Your task to perform on an android device: open app "Move to iOS" (install if not already installed) and enter user name: "Decca@icloud.com" and password: "reabbreviate" Image 0: 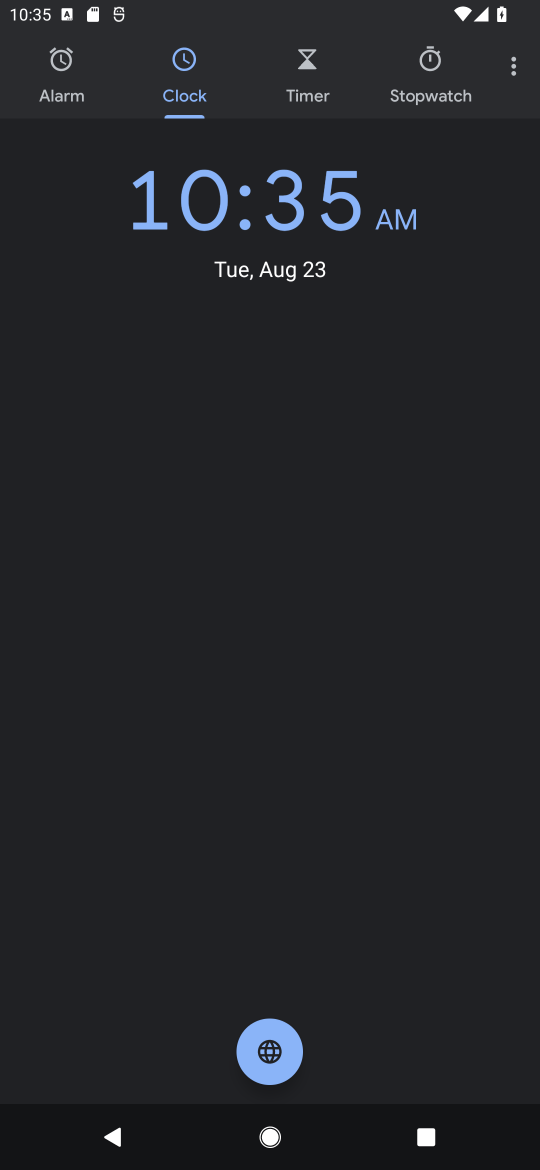
Step 0: press home button
Your task to perform on an android device: open app "Move to iOS" (install if not already installed) and enter user name: "Decca@icloud.com" and password: "reabbreviate" Image 1: 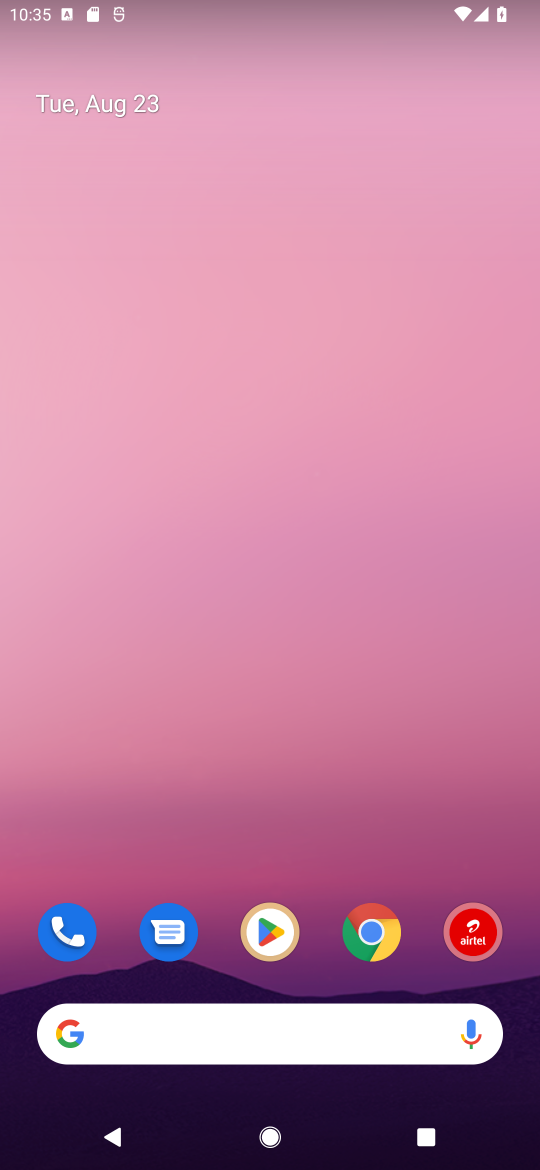
Step 1: click (262, 907)
Your task to perform on an android device: open app "Move to iOS" (install if not already installed) and enter user name: "Decca@icloud.com" and password: "reabbreviate" Image 2: 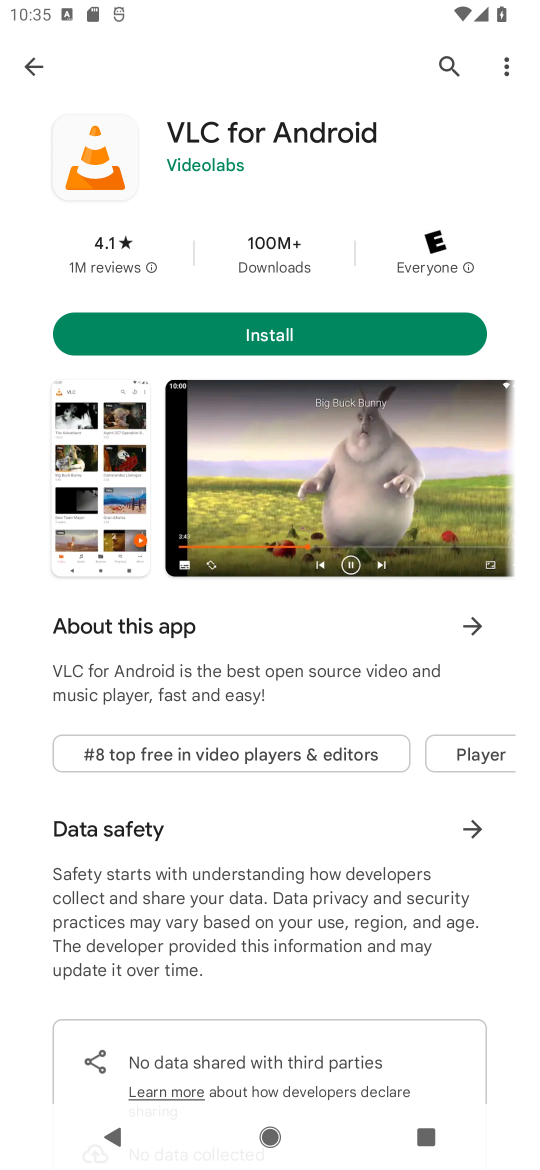
Step 2: click (444, 58)
Your task to perform on an android device: open app "Move to iOS" (install if not already installed) and enter user name: "Decca@icloud.com" and password: "reabbreviate" Image 3: 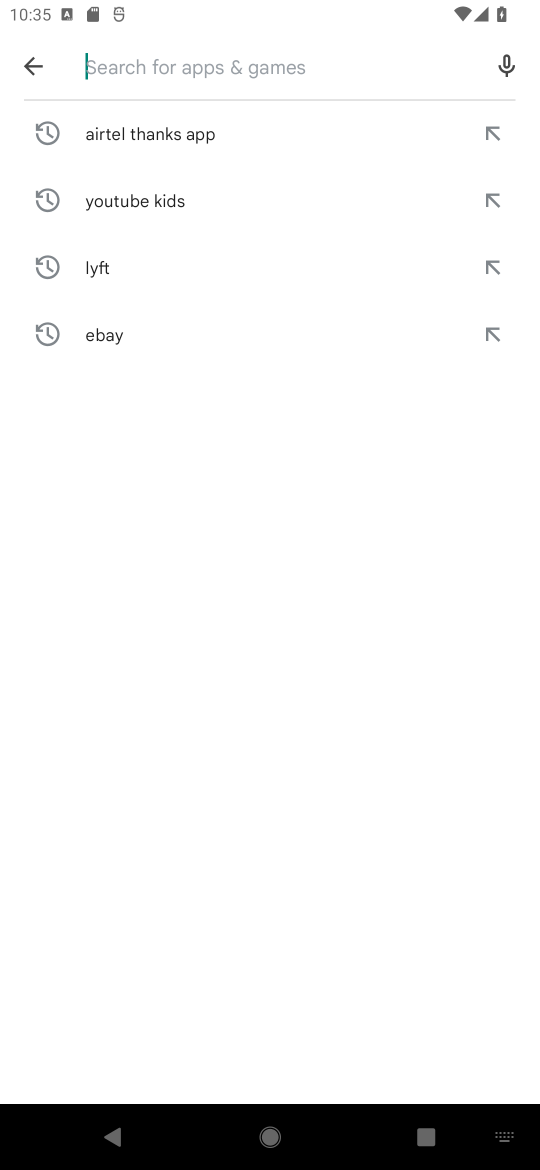
Step 3: click (201, 73)
Your task to perform on an android device: open app "Move to iOS" (install if not already installed) and enter user name: "Decca@icloud.com" and password: "reabbreviate" Image 4: 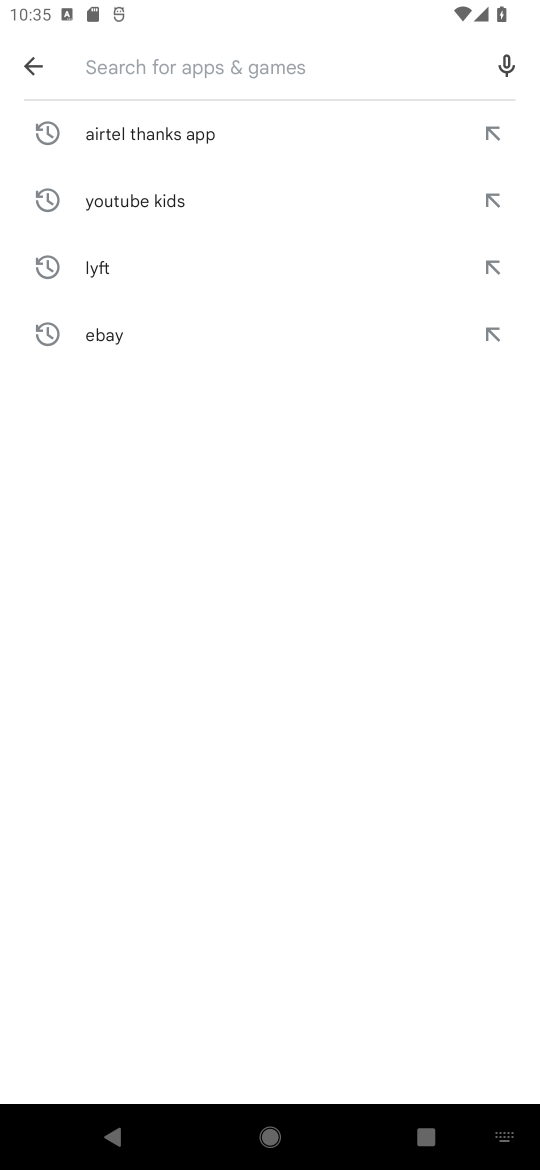
Step 4: type "Move to iOS"
Your task to perform on an android device: open app "Move to iOS" (install if not already installed) and enter user name: "Decca@icloud.com" and password: "reabbreviate" Image 5: 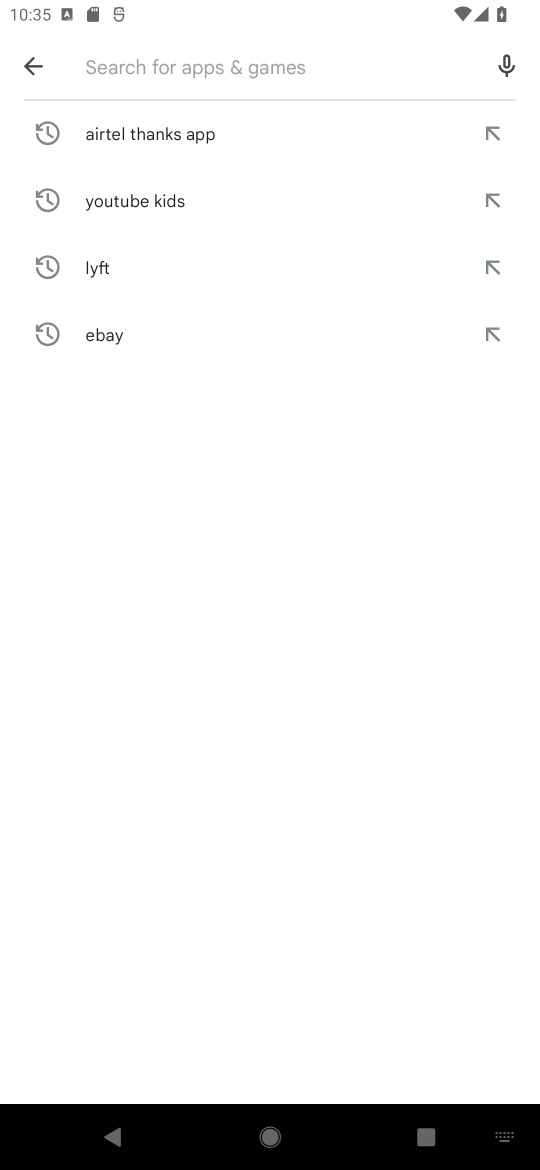
Step 5: click (244, 775)
Your task to perform on an android device: open app "Move to iOS" (install if not already installed) and enter user name: "Decca@icloud.com" and password: "reabbreviate" Image 6: 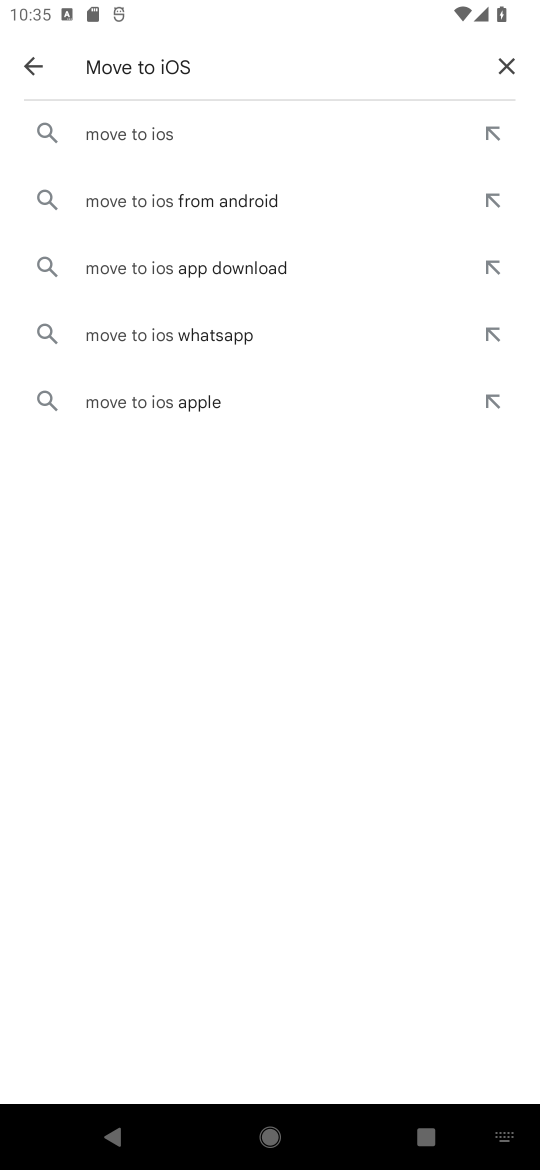
Step 6: click (89, 118)
Your task to perform on an android device: open app "Move to iOS" (install if not already installed) and enter user name: "Decca@icloud.com" and password: "reabbreviate" Image 7: 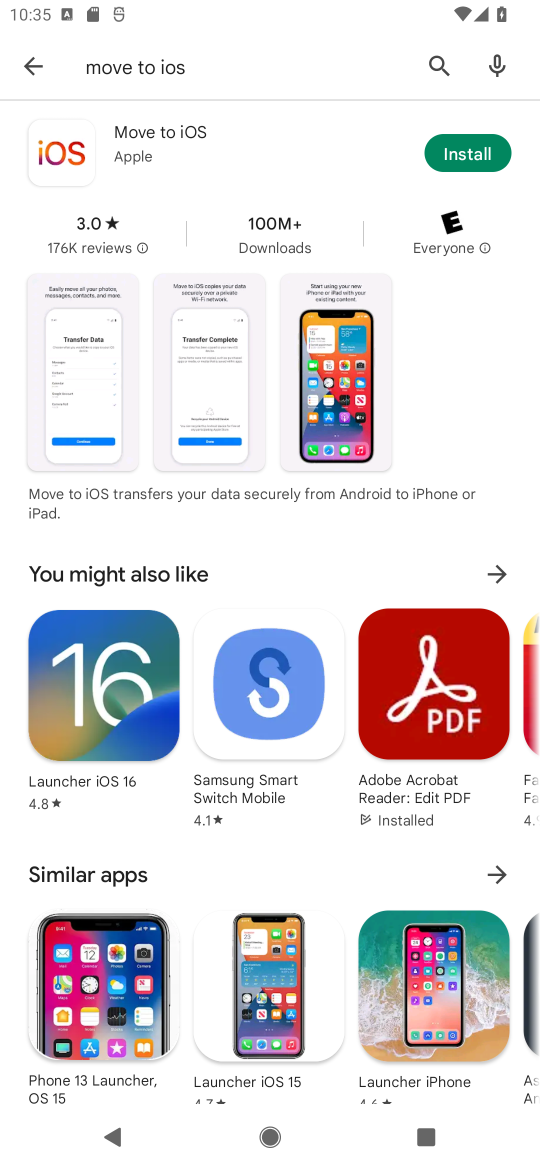
Step 7: click (481, 156)
Your task to perform on an android device: open app "Move to iOS" (install if not already installed) and enter user name: "Decca@icloud.com" and password: "reabbreviate" Image 8: 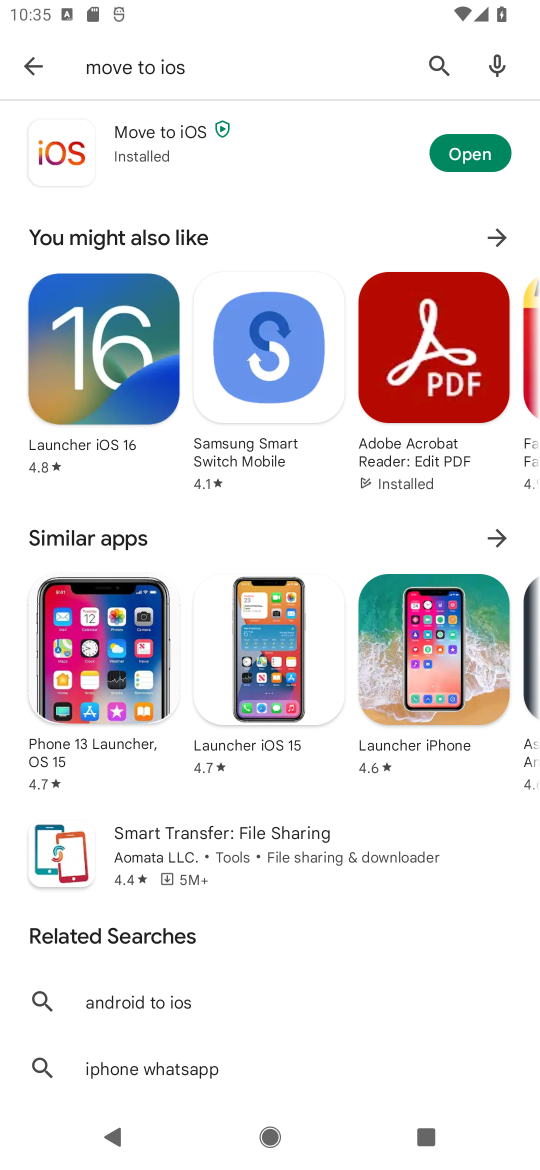
Step 8: click (478, 162)
Your task to perform on an android device: open app "Move to iOS" (install if not already installed) and enter user name: "Decca@icloud.com" and password: "reabbreviate" Image 9: 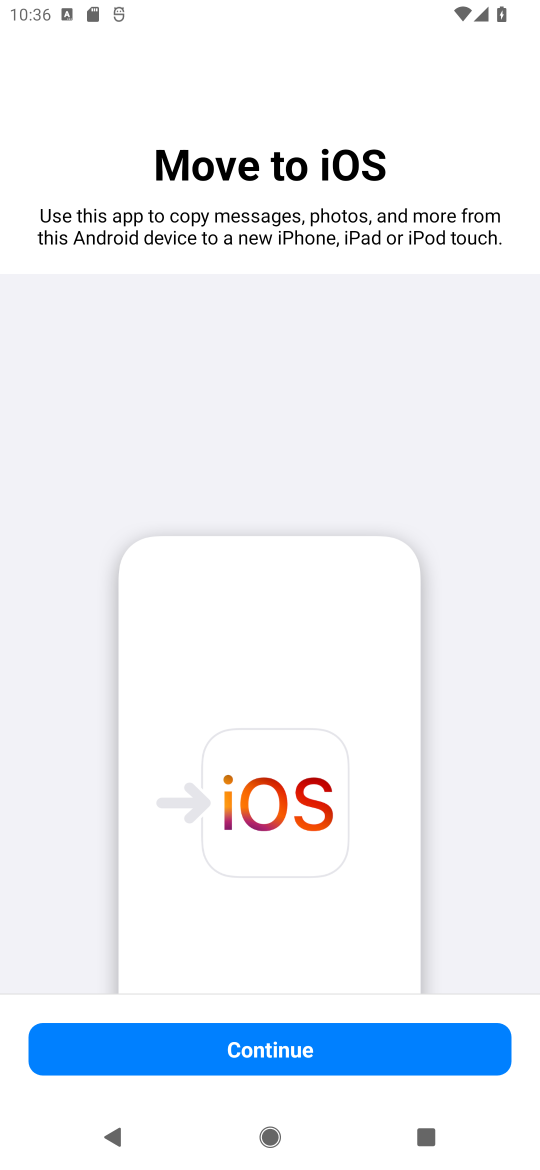
Step 9: click (280, 1046)
Your task to perform on an android device: open app "Move to iOS" (install if not already installed) and enter user name: "Decca@icloud.com" and password: "reabbreviate" Image 10: 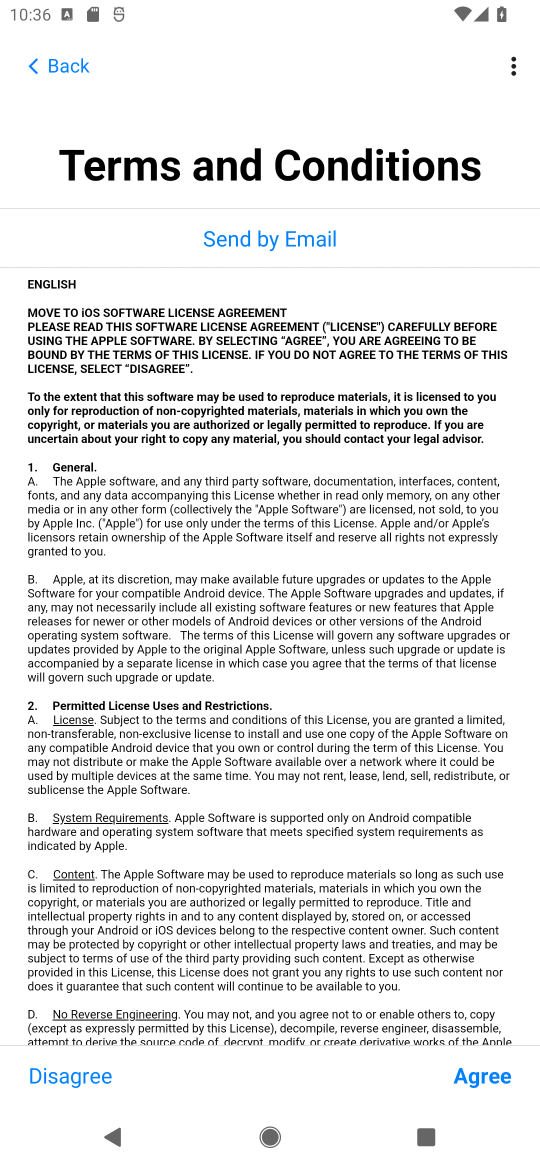
Step 10: click (475, 1062)
Your task to perform on an android device: open app "Move to iOS" (install if not already installed) and enter user name: "Decca@icloud.com" and password: "reabbreviate" Image 11: 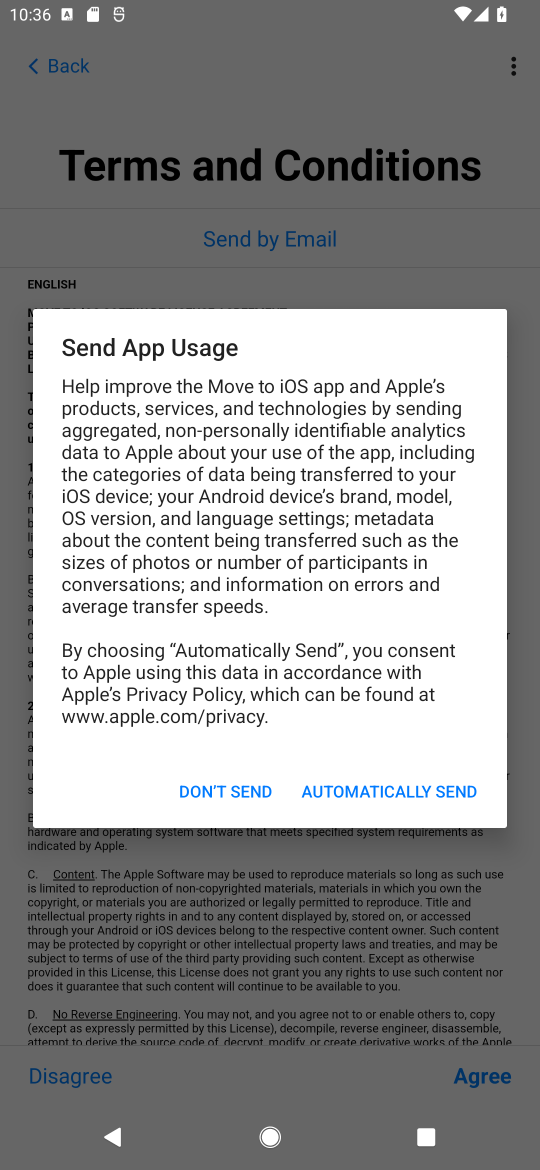
Step 11: click (216, 772)
Your task to perform on an android device: open app "Move to iOS" (install if not already installed) and enter user name: "Decca@icloud.com" and password: "reabbreviate" Image 12: 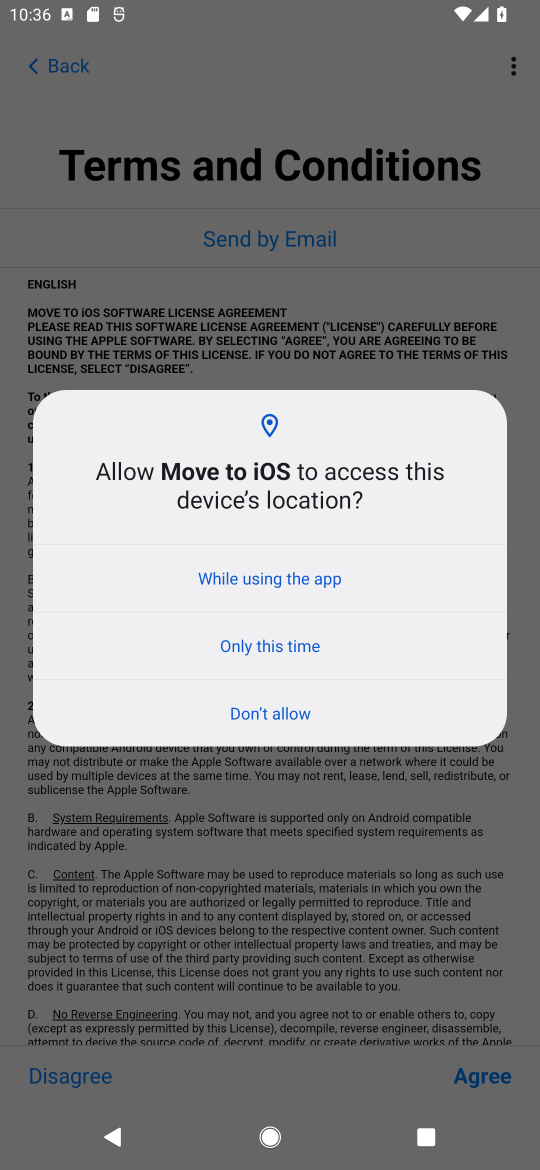
Step 12: click (250, 539)
Your task to perform on an android device: open app "Move to iOS" (install if not already installed) and enter user name: "Decca@icloud.com" and password: "reabbreviate" Image 13: 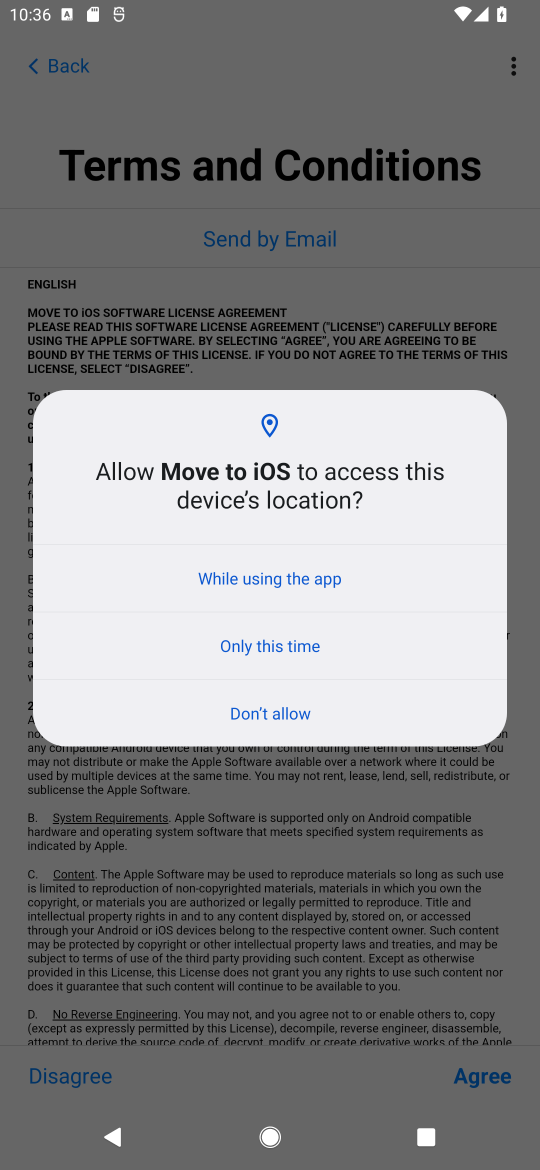
Step 13: click (270, 585)
Your task to perform on an android device: open app "Move to iOS" (install if not already installed) and enter user name: "Decca@icloud.com" and password: "reabbreviate" Image 14: 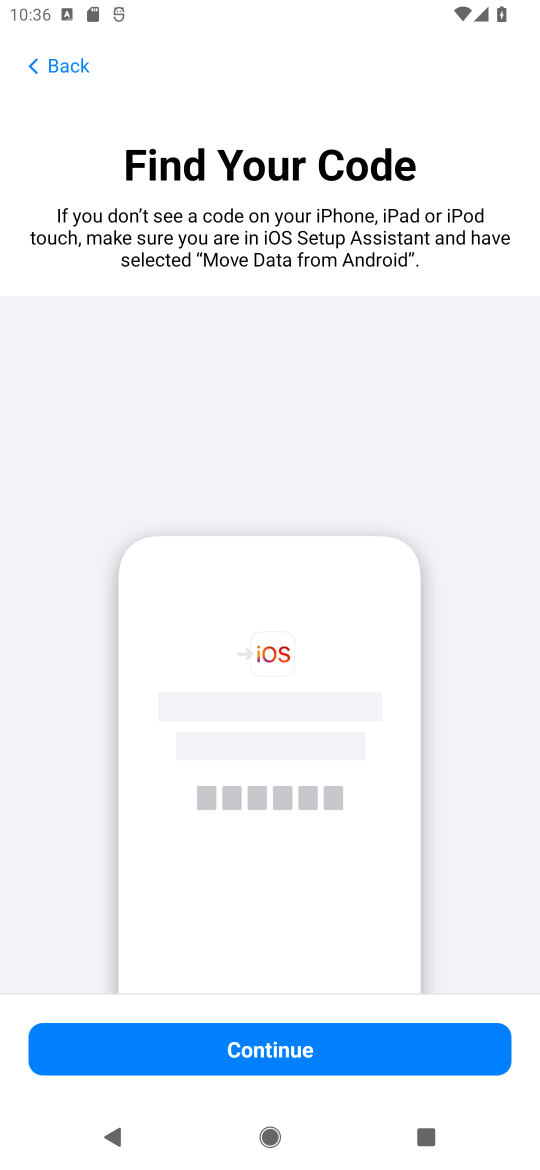
Step 14: click (269, 1059)
Your task to perform on an android device: open app "Move to iOS" (install if not already installed) and enter user name: "Decca@icloud.com" and password: "reabbreviate" Image 15: 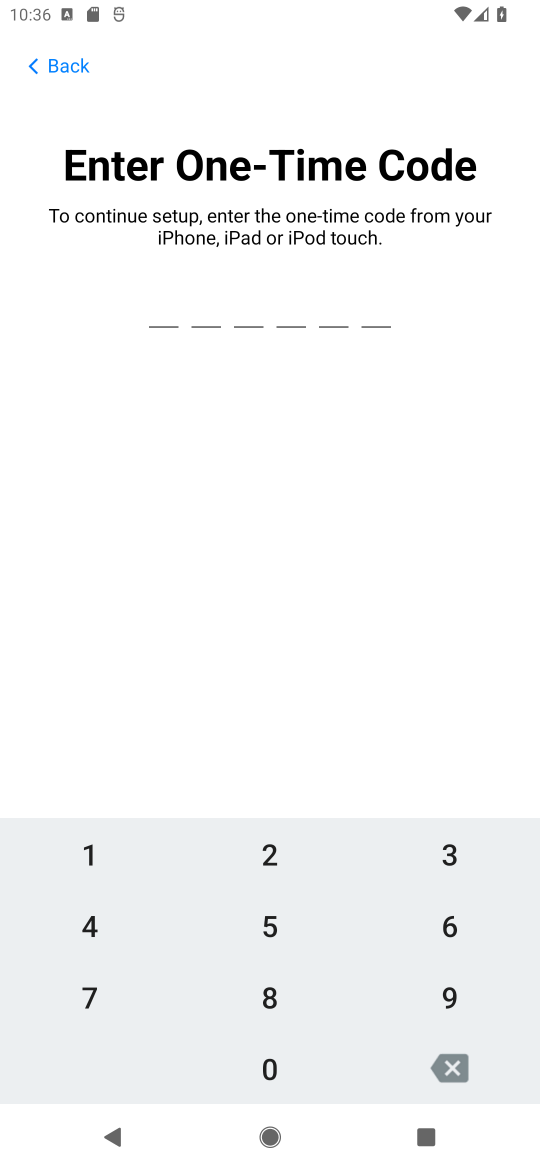
Step 15: task complete